Your task to perform on an android device: open the mobile data screen to see how much data has been used Image 0: 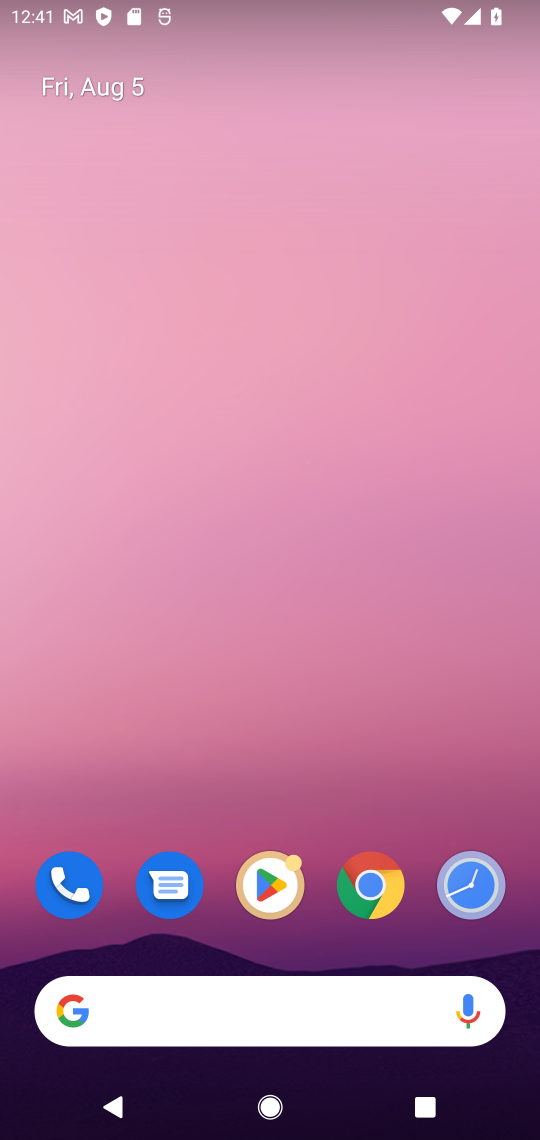
Step 0: drag from (218, 917) to (231, 186)
Your task to perform on an android device: open the mobile data screen to see how much data has been used Image 1: 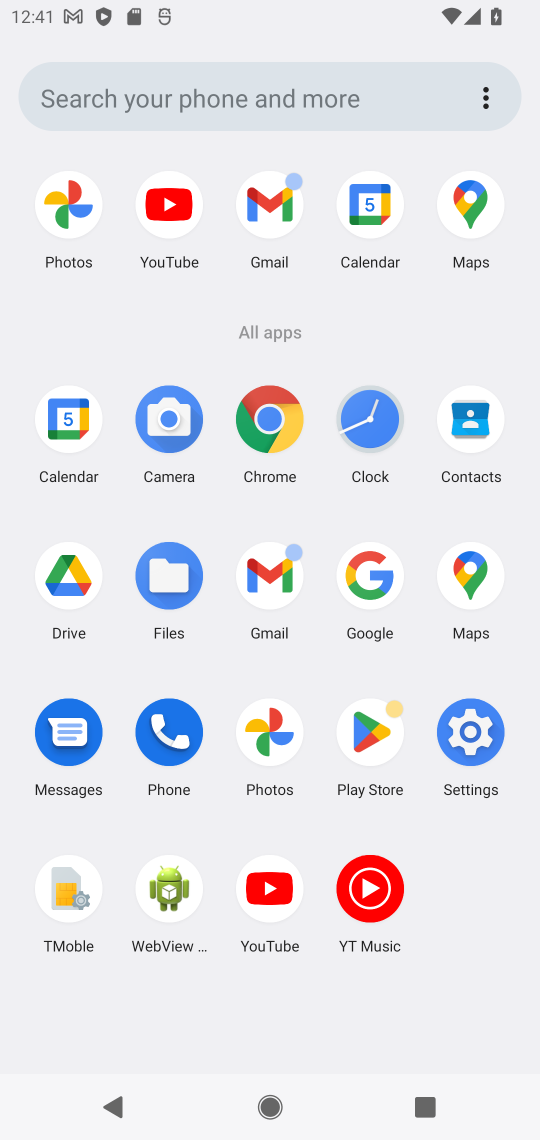
Step 1: click (457, 739)
Your task to perform on an android device: open the mobile data screen to see how much data has been used Image 2: 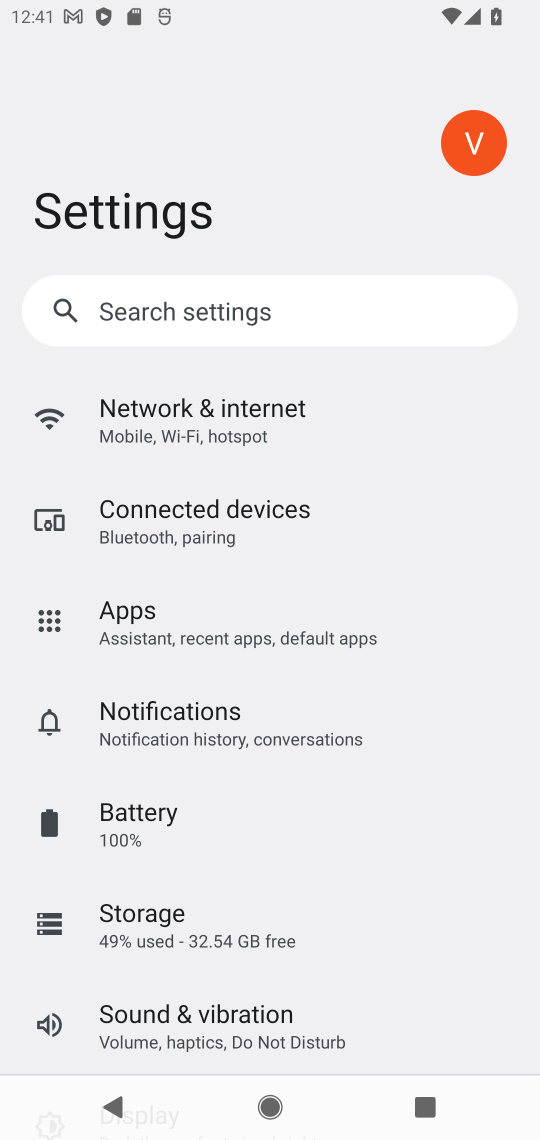
Step 2: click (243, 435)
Your task to perform on an android device: open the mobile data screen to see how much data has been used Image 3: 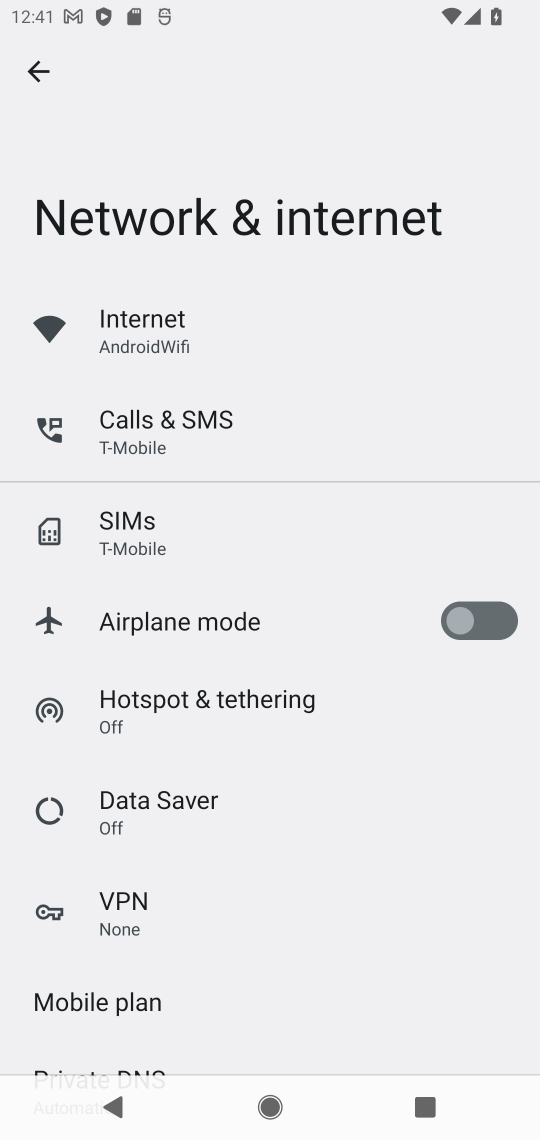
Step 3: click (152, 331)
Your task to perform on an android device: open the mobile data screen to see how much data has been used Image 4: 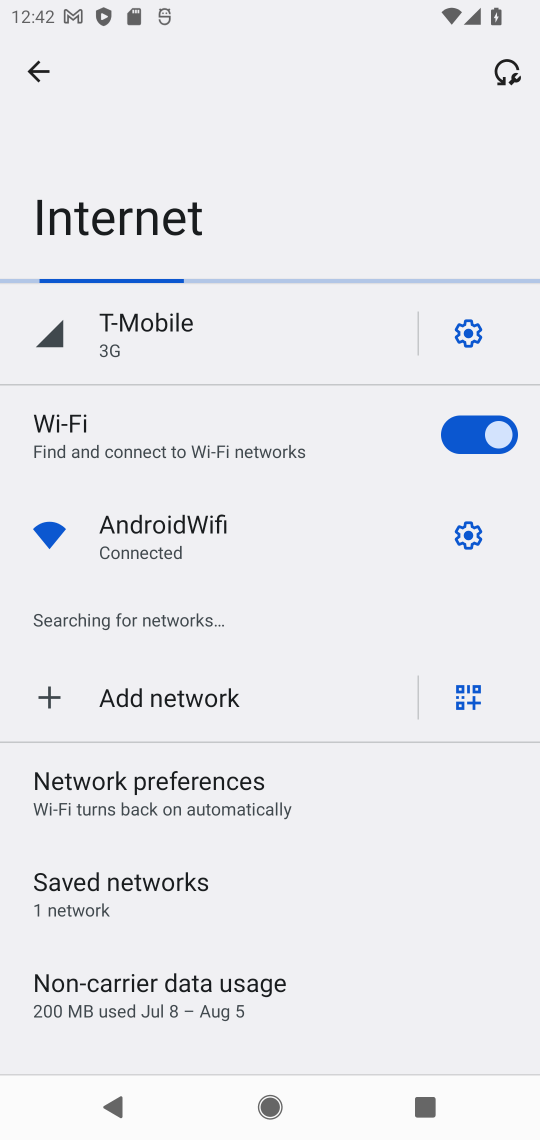
Step 4: click (172, 345)
Your task to perform on an android device: open the mobile data screen to see how much data has been used Image 5: 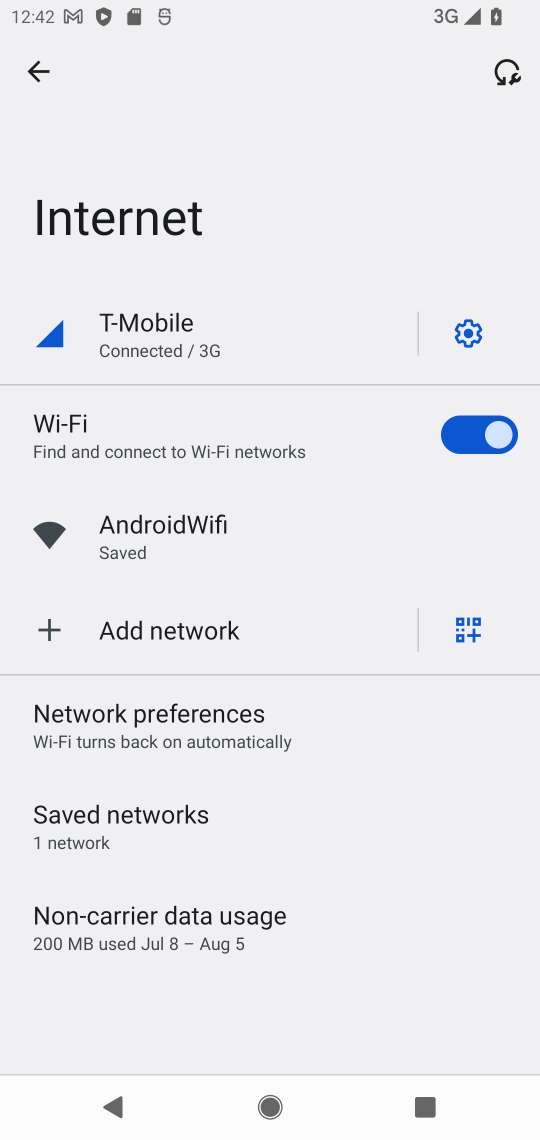
Step 5: click (200, 350)
Your task to perform on an android device: open the mobile data screen to see how much data has been used Image 6: 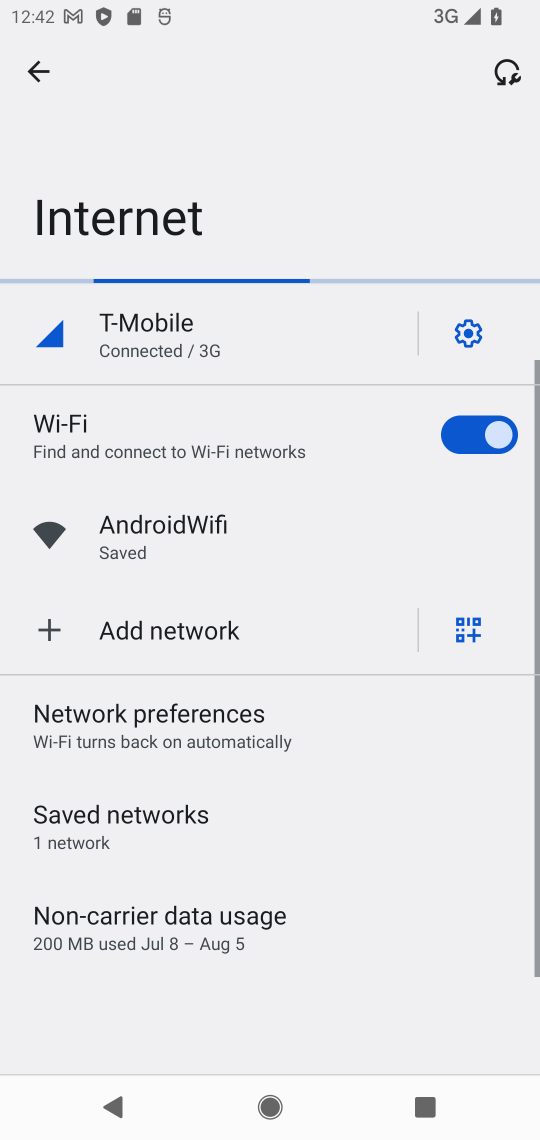
Step 6: click (119, 924)
Your task to perform on an android device: open the mobile data screen to see how much data has been used Image 7: 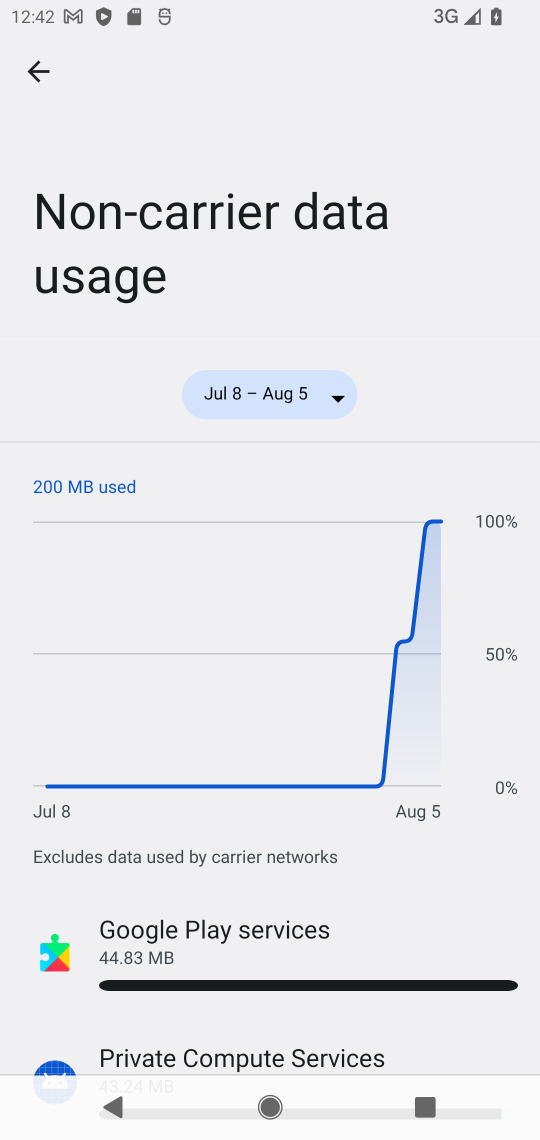
Step 7: task complete